Your task to perform on an android device: Show me popular games on the Play Store Image 0: 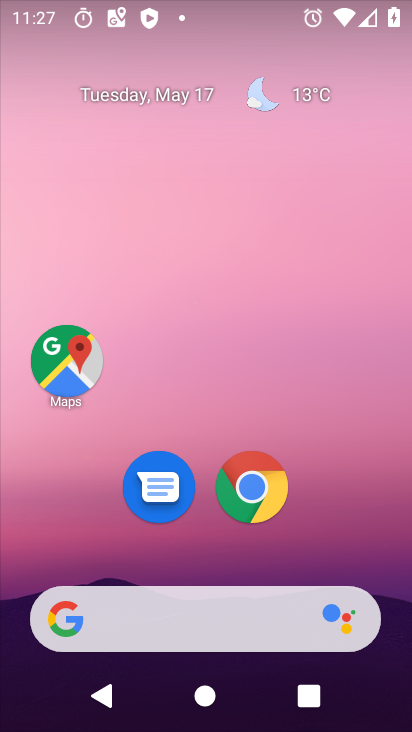
Step 0: drag from (217, 727) to (213, 29)
Your task to perform on an android device: Show me popular games on the Play Store Image 1: 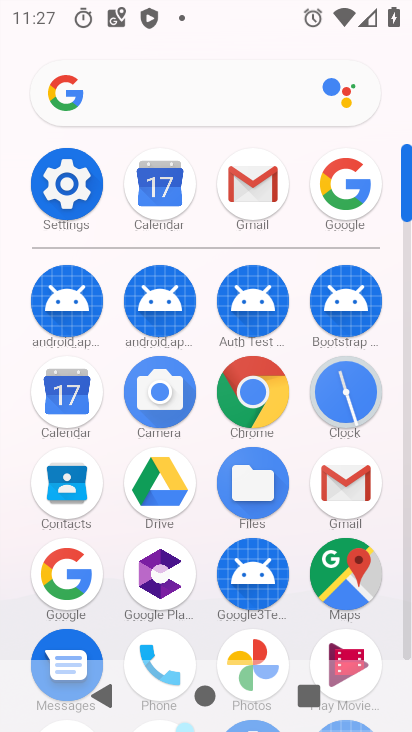
Step 1: drag from (206, 621) to (206, 235)
Your task to perform on an android device: Show me popular games on the Play Store Image 2: 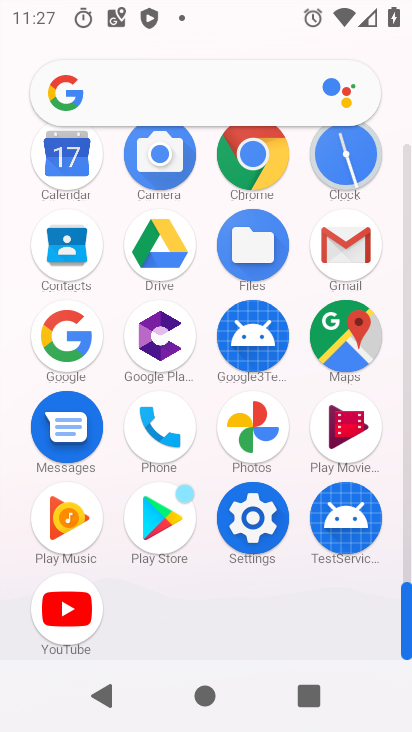
Step 2: click (160, 518)
Your task to perform on an android device: Show me popular games on the Play Store Image 3: 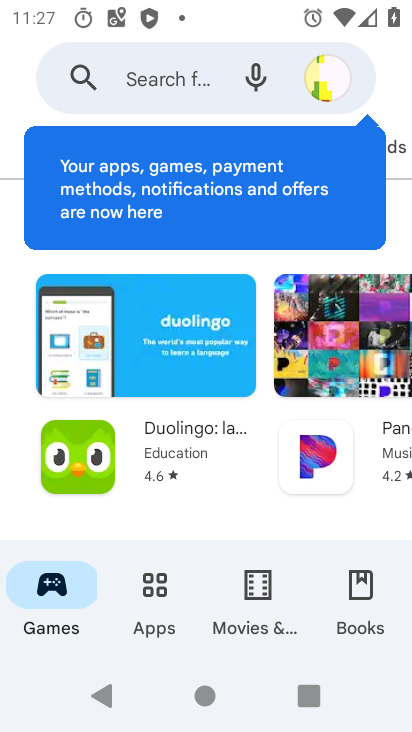
Step 3: drag from (222, 526) to (222, 178)
Your task to perform on an android device: Show me popular games on the Play Store Image 4: 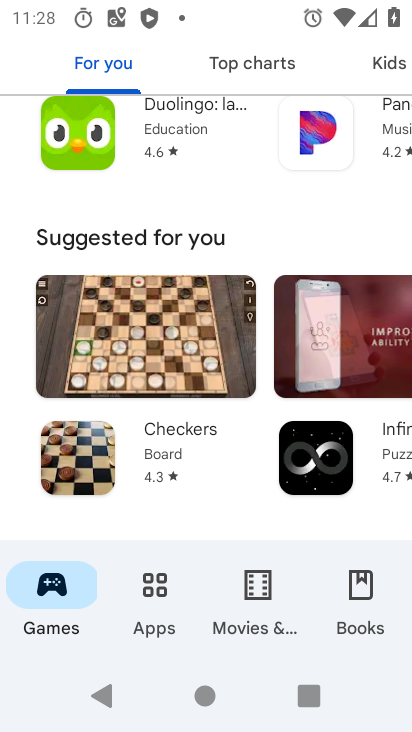
Step 4: drag from (217, 510) to (217, 197)
Your task to perform on an android device: Show me popular games on the Play Store Image 5: 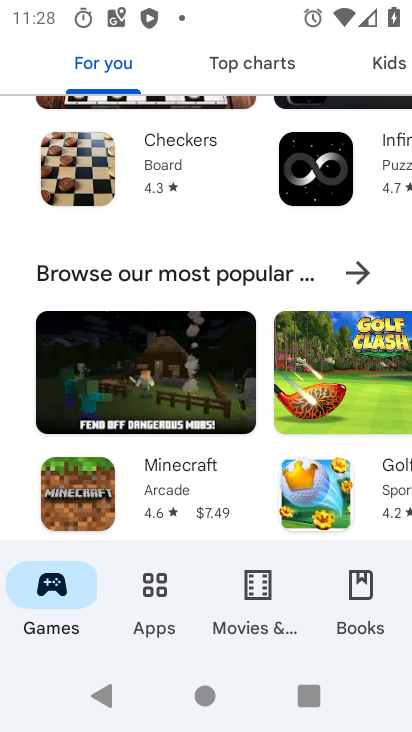
Step 5: click (356, 270)
Your task to perform on an android device: Show me popular games on the Play Store Image 6: 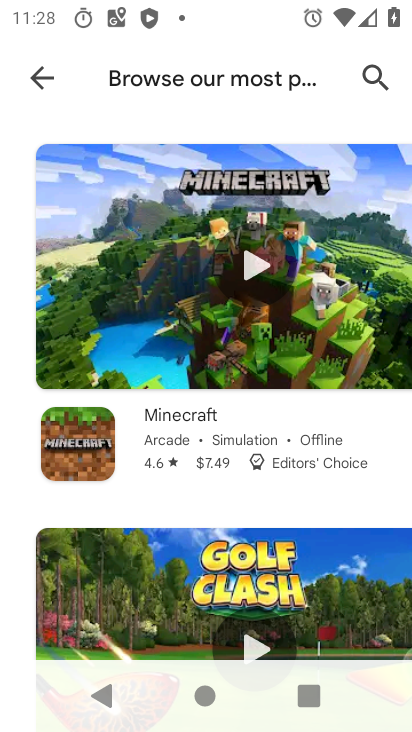
Step 6: task complete